Your task to perform on an android device: Show me popular games on the Play Store Image 0: 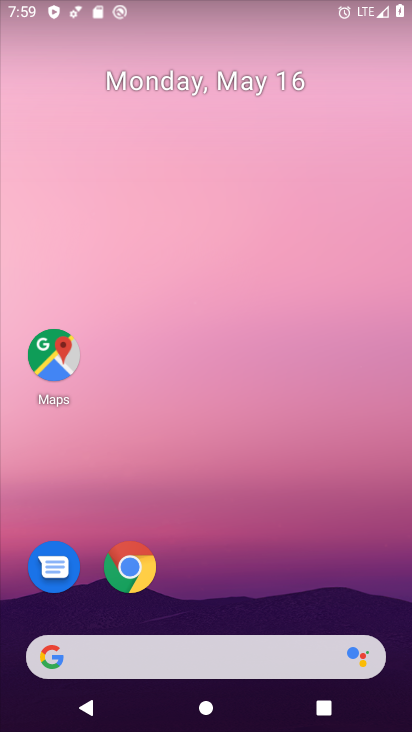
Step 0: drag from (150, 638) to (211, 219)
Your task to perform on an android device: Show me popular games on the Play Store Image 1: 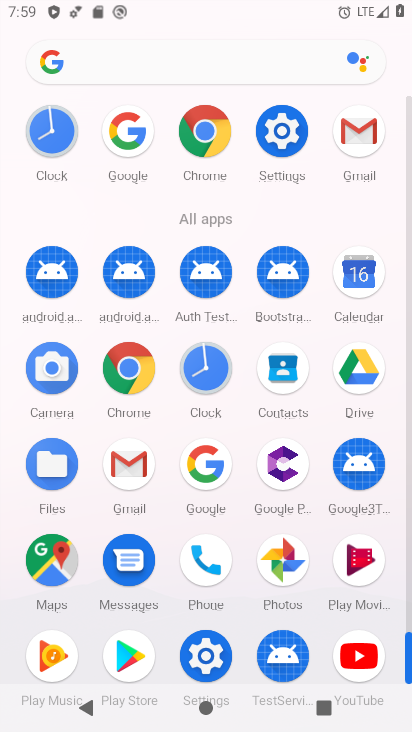
Step 1: drag from (161, 606) to (182, 234)
Your task to perform on an android device: Show me popular games on the Play Store Image 2: 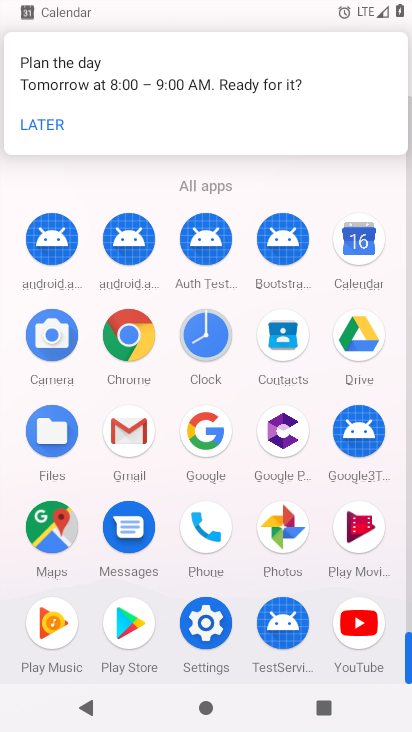
Step 2: click (126, 603)
Your task to perform on an android device: Show me popular games on the Play Store Image 3: 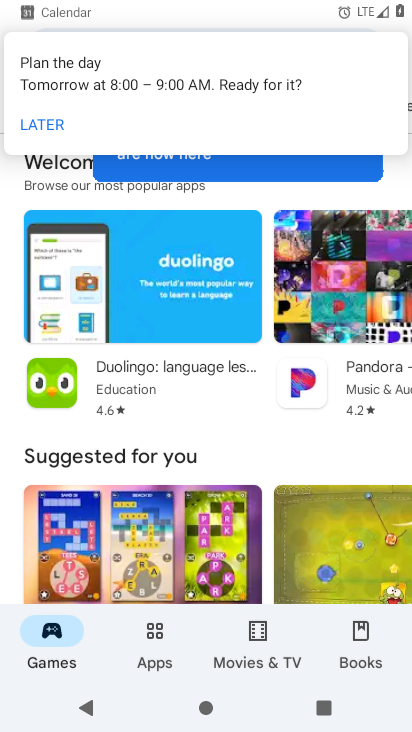
Step 3: click (130, 629)
Your task to perform on an android device: Show me popular games on the Play Store Image 4: 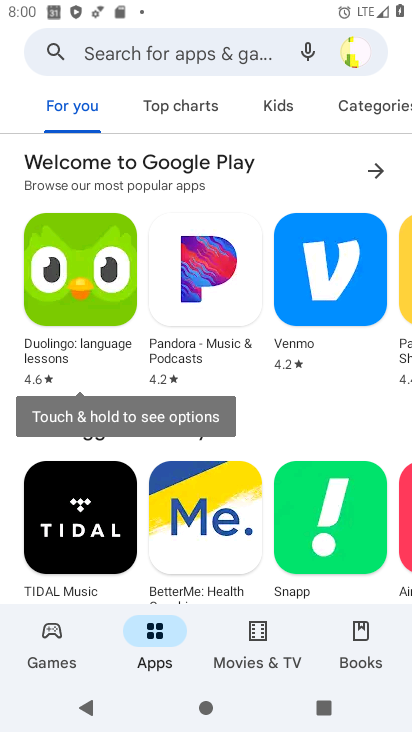
Step 4: click (123, 57)
Your task to perform on an android device: Show me popular games on the Play Store Image 5: 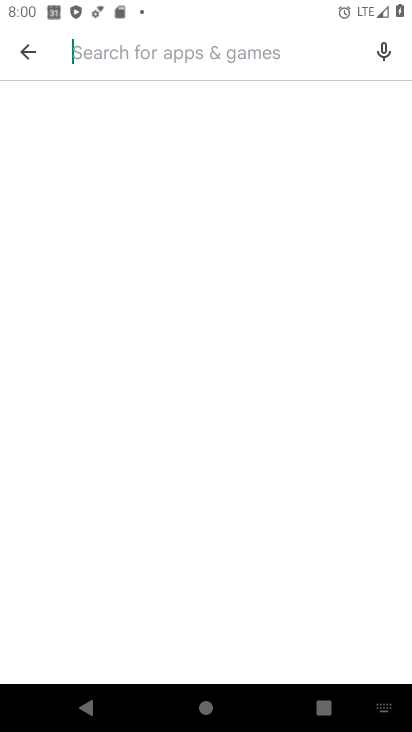
Step 5: type "popular games"
Your task to perform on an android device: Show me popular games on the Play Store Image 6: 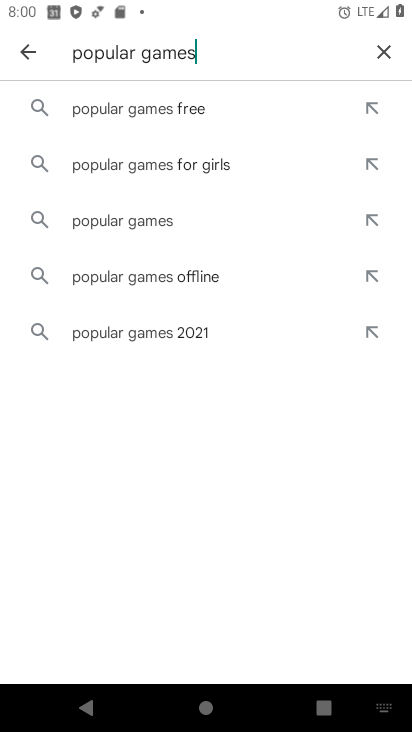
Step 6: click (120, 108)
Your task to perform on an android device: Show me popular games on the Play Store Image 7: 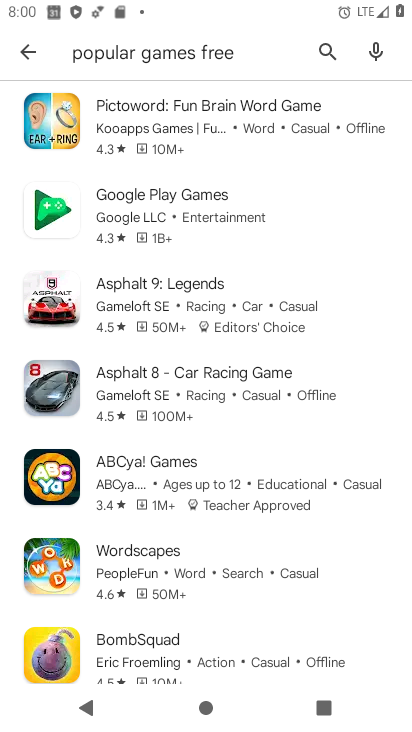
Step 7: task complete